Your task to perform on an android device: find photos in the google photos app Image 0: 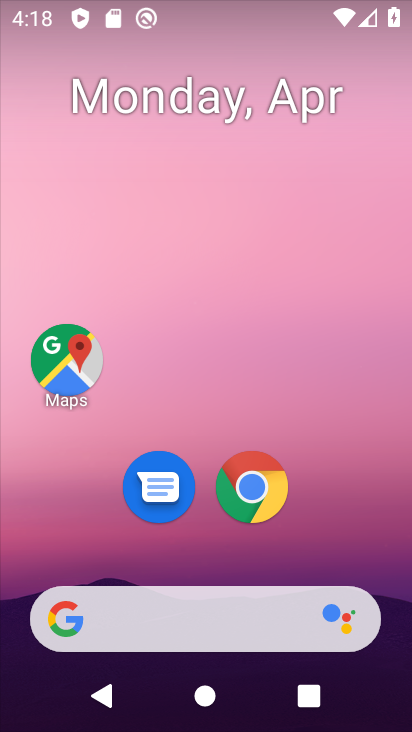
Step 0: drag from (372, 545) to (377, 99)
Your task to perform on an android device: find photos in the google photos app Image 1: 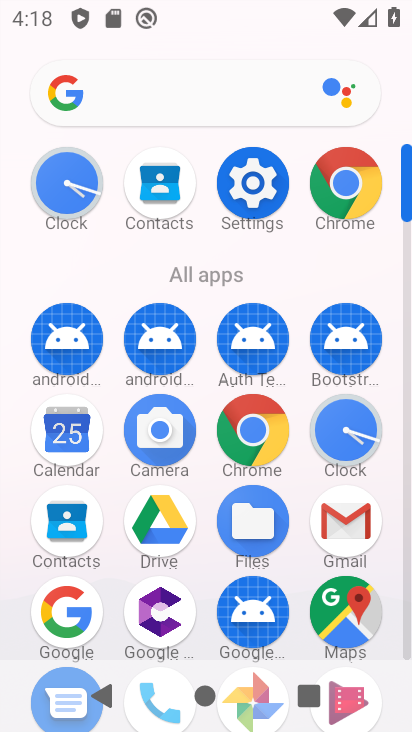
Step 1: drag from (404, 520) to (406, 356)
Your task to perform on an android device: find photos in the google photos app Image 2: 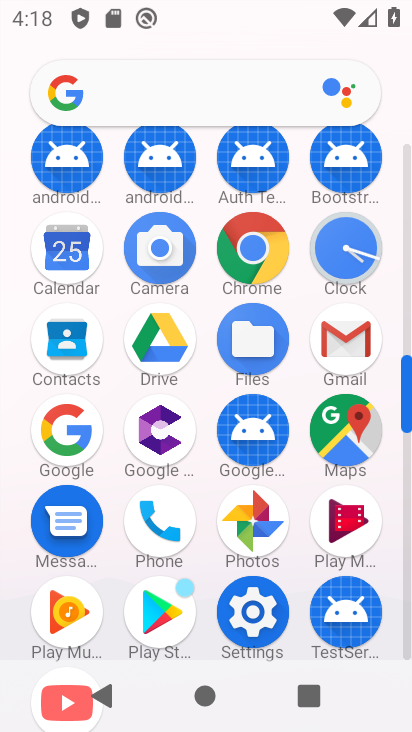
Step 2: click (253, 514)
Your task to perform on an android device: find photos in the google photos app Image 3: 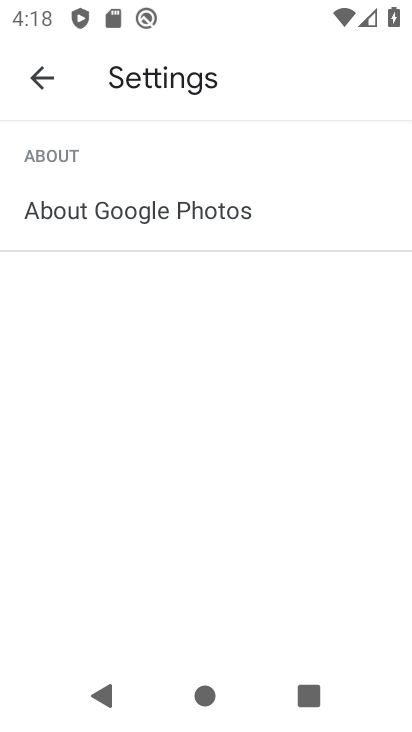
Step 3: click (45, 85)
Your task to perform on an android device: find photos in the google photos app Image 4: 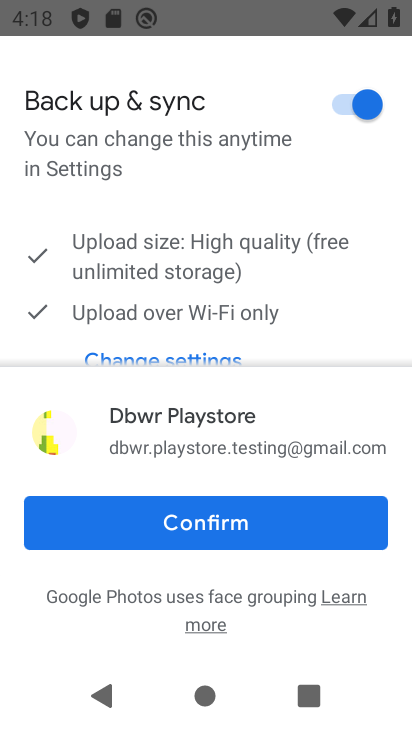
Step 4: click (229, 525)
Your task to perform on an android device: find photos in the google photos app Image 5: 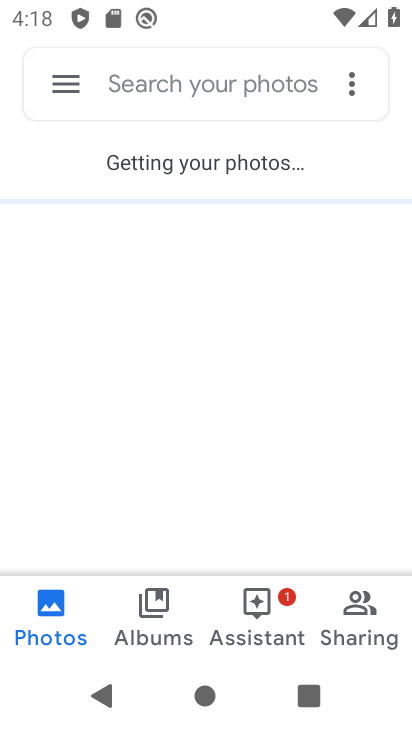
Step 5: click (238, 345)
Your task to perform on an android device: find photos in the google photos app Image 6: 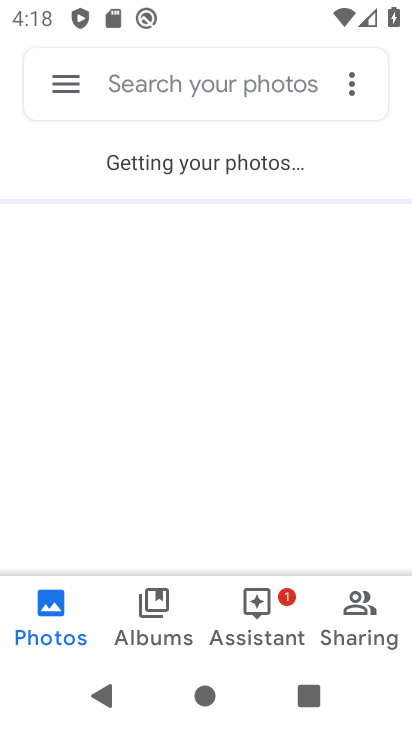
Step 6: drag from (253, 450) to (270, 373)
Your task to perform on an android device: find photos in the google photos app Image 7: 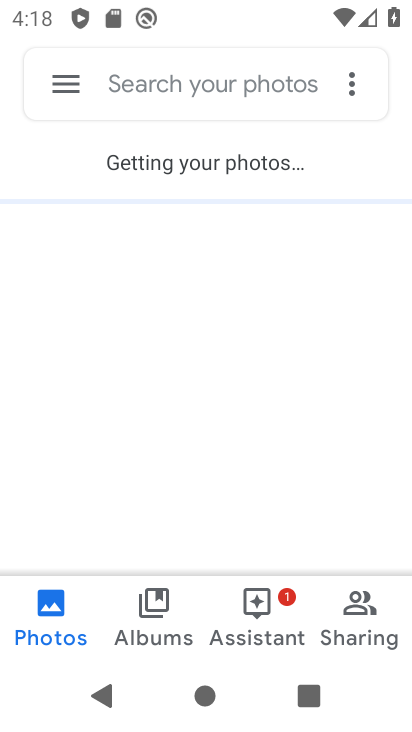
Step 7: click (227, 343)
Your task to perform on an android device: find photos in the google photos app Image 8: 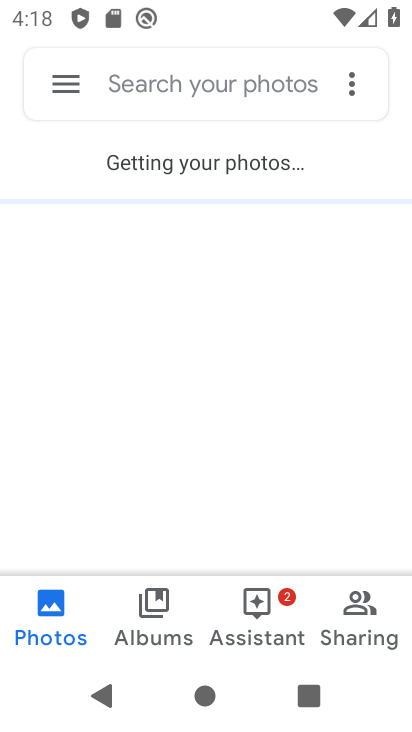
Step 8: task complete